Your task to perform on an android device: change keyboard looks Image 0: 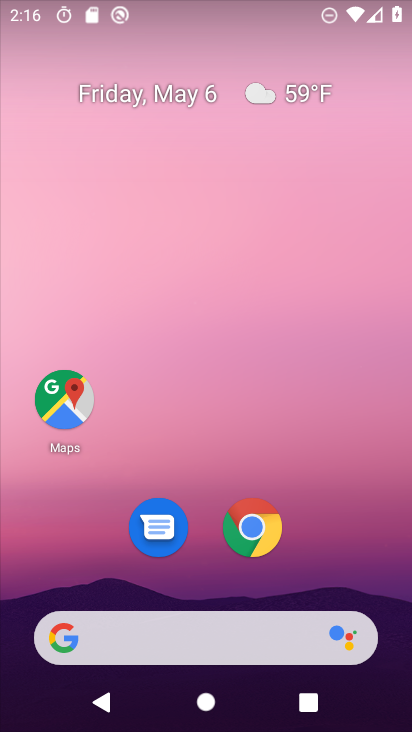
Step 0: drag from (312, 526) to (115, 153)
Your task to perform on an android device: change keyboard looks Image 1: 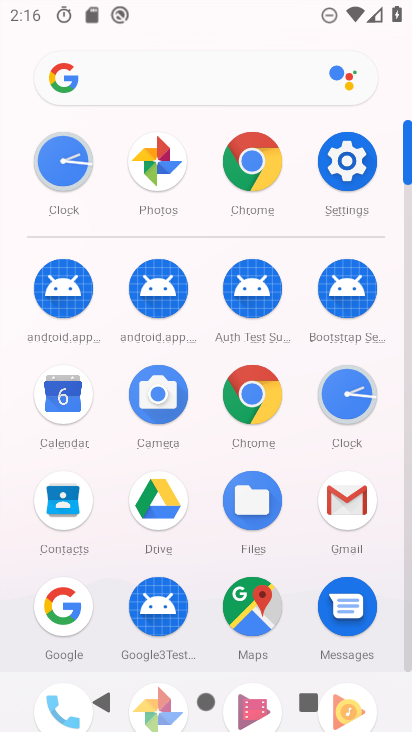
Step 1: click (352, 179)
Your task to perform on an android device: change keyboard looks Image 2: 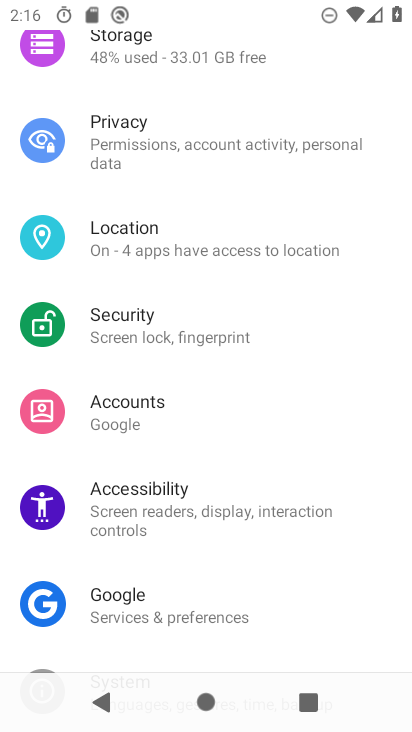
Step 2: drag from (208, 610) to (188, 179)
Your task to perform on an android device: change keyboard looks Image 3: 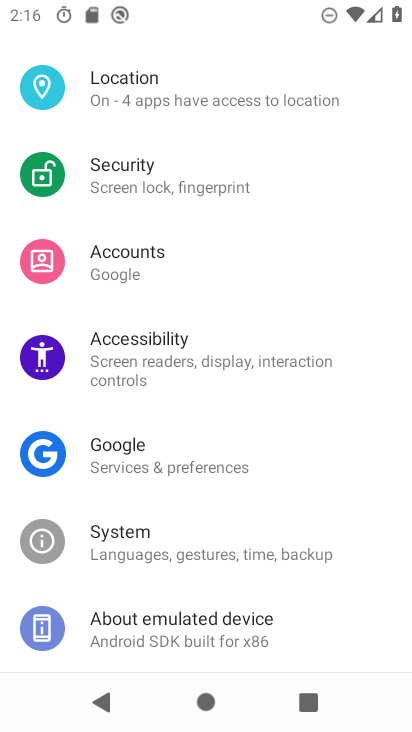
Step 3: click (217, 558)
Your task to perform on an android device: change keyboard looks Image 4: 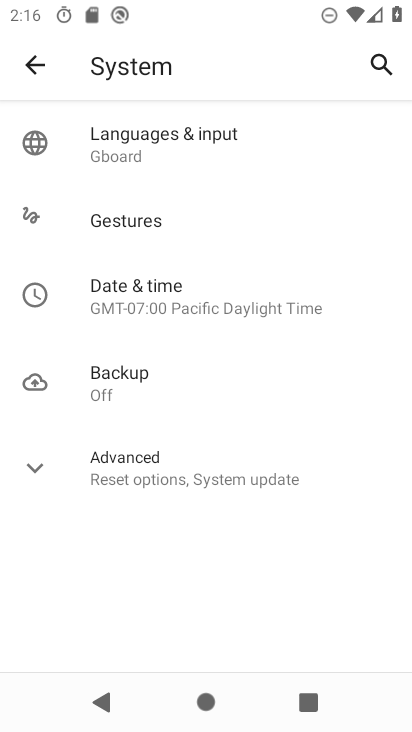
Step 4: click (171, 160)
Your task to perform on an android device: change keyboard looks Image 5: 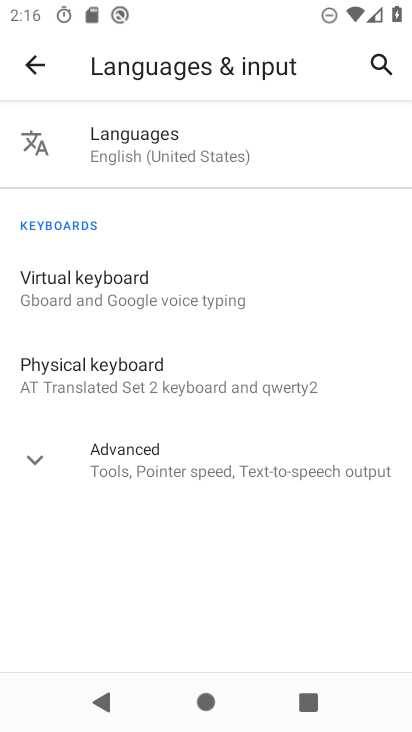
Step 5: click (132, 304)
Your task to perform on an android device: change keyboard looks Image 6: 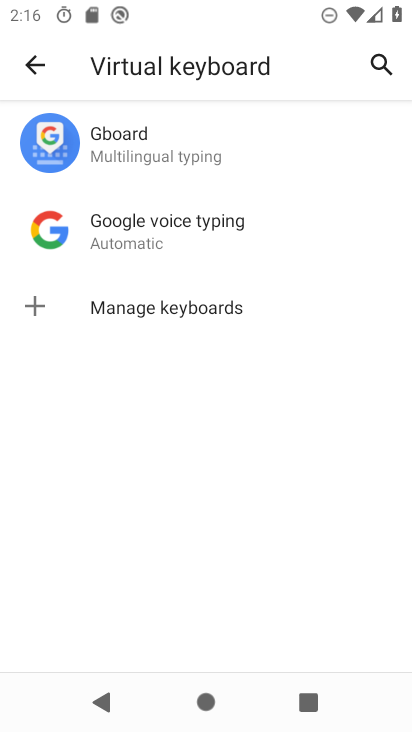
Step 6: click (140, 155)
Your task to perform on an android device: change keyboard looks Image 7: 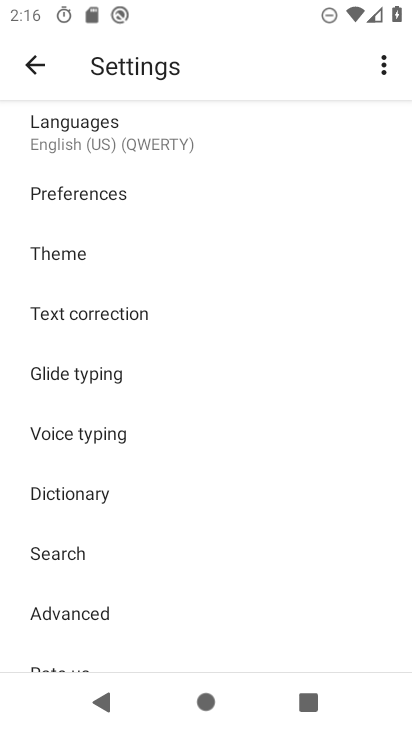
Step 7: click (55, 249)
Your task to perform on an android device: change keyboard looks Image 8: 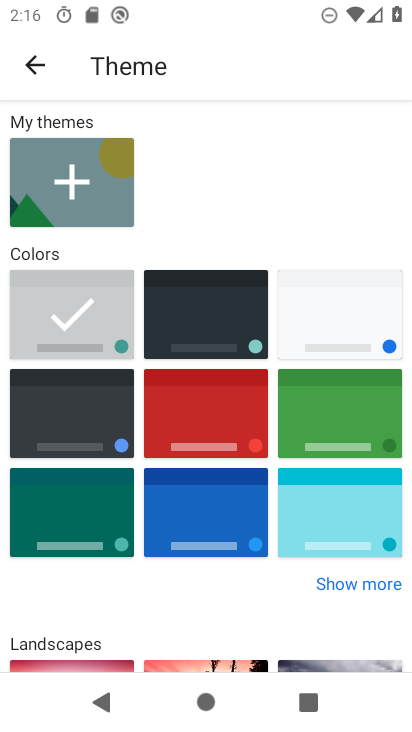
Step 8: click (102, 525)
Your task to perform on an android device: change keyboard looks Image 9: 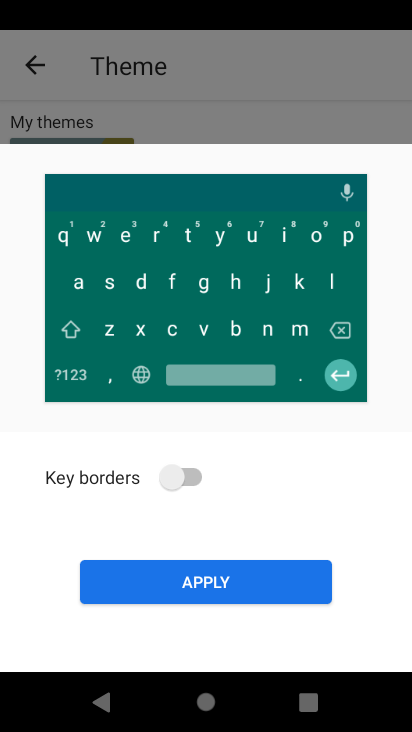
Step 9: click (207, 590)
Your task to perform on an android device: change keyboard looks Image 10: 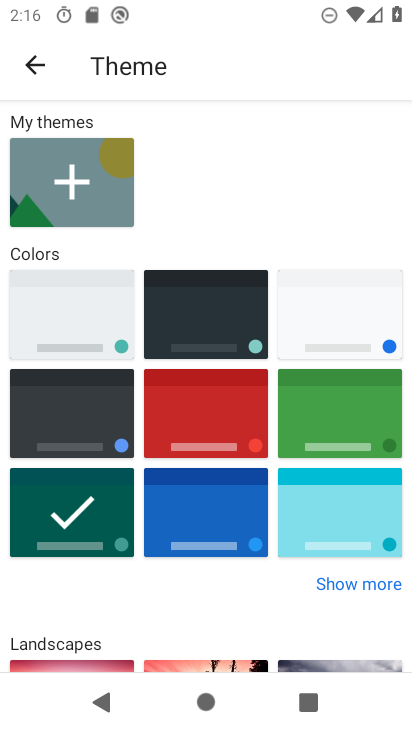
Step 10: task complete